Your task to perform on an android device: set default search engine in the chrome app Image 0: 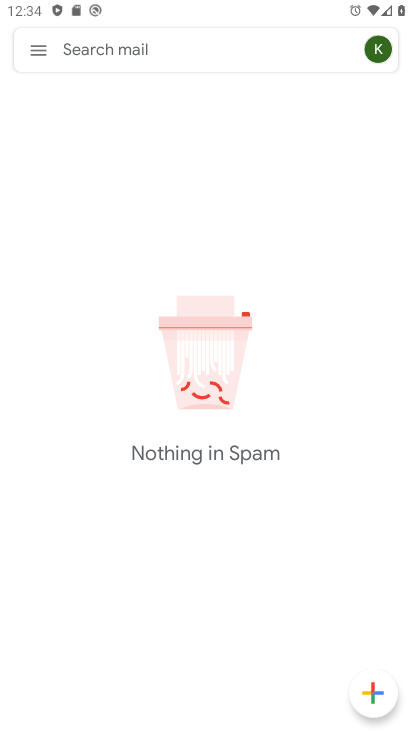
Step 0: press home button
Your task to perform on an android device: set default search engine in the chrome app Image 1: 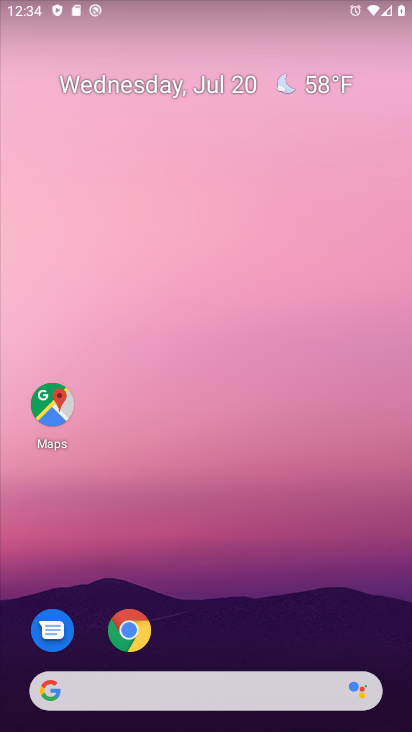
Step 1: click (123, 632)
Your task to perform on an android device: set default search engine in the chrome app Image 2: 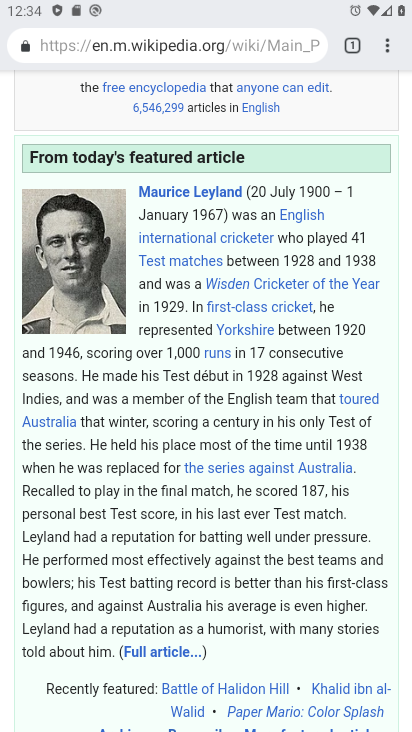
Step 2: drag from (383, 45) to (234, 550)
Your task to perform on an android device: set default search engine in the chrome app Image 3: 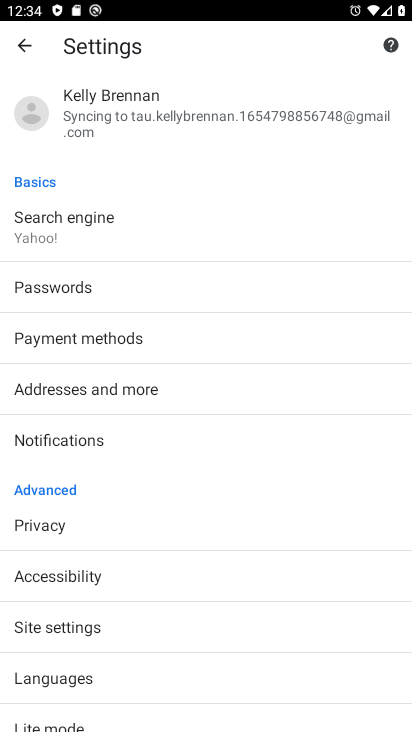
Step 3: click (86, 224)
Your task to perform on an android device: set default search engine in the chrome app Image 4: 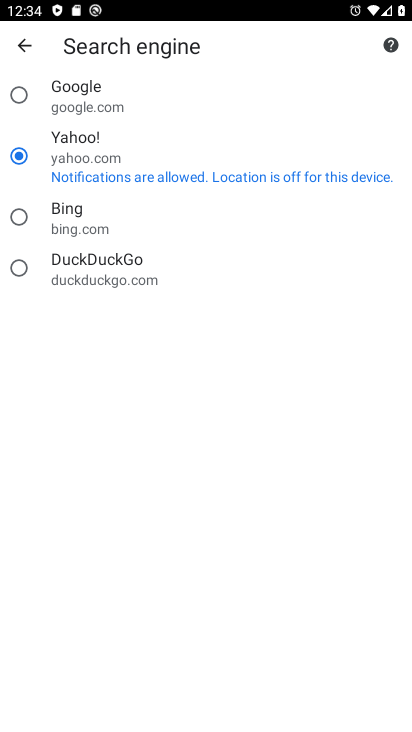
Step 4: click (16, 92)
Your task to perform on an android device: set default search engine in the chrome app Image 5: 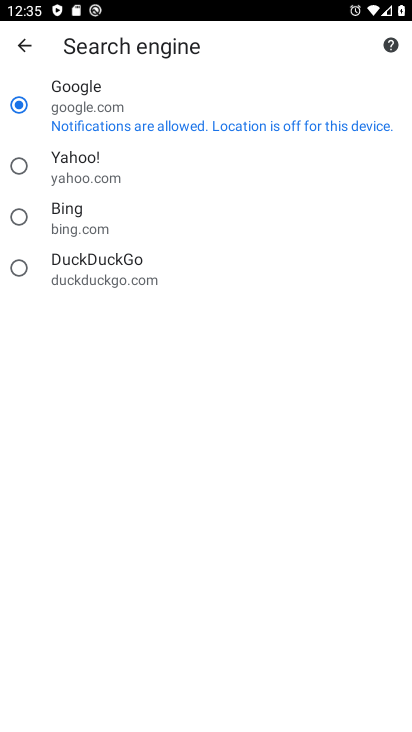
Step 5: task complete